Your task to perform on an android device: Open the phone app and click the voicemail tab. Image 0: 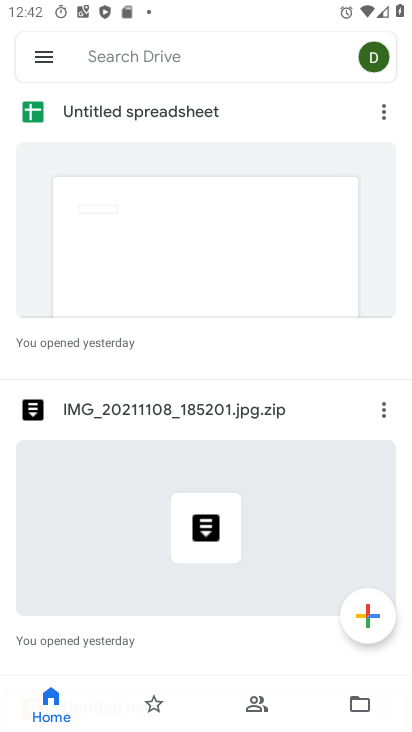
Step 0: press home button
Your task to perform on an android device: Open the phone app and click the voicemail tab. Image 1: 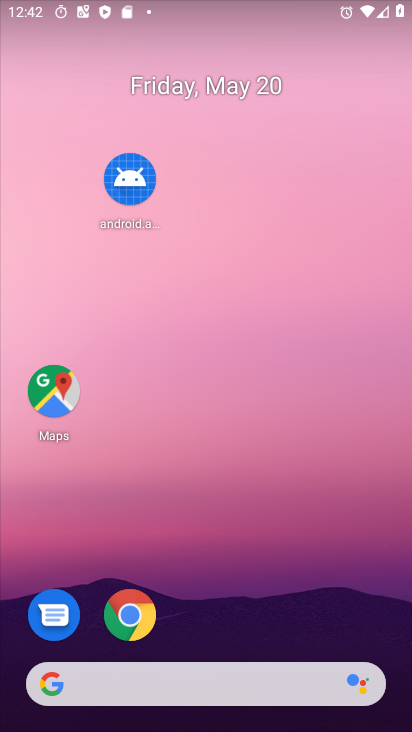
Step 1: drag from (240, 588) to (286, 3)
Your task to perform on an android device: Open the phone app and click the voicemail tab. Image 2: 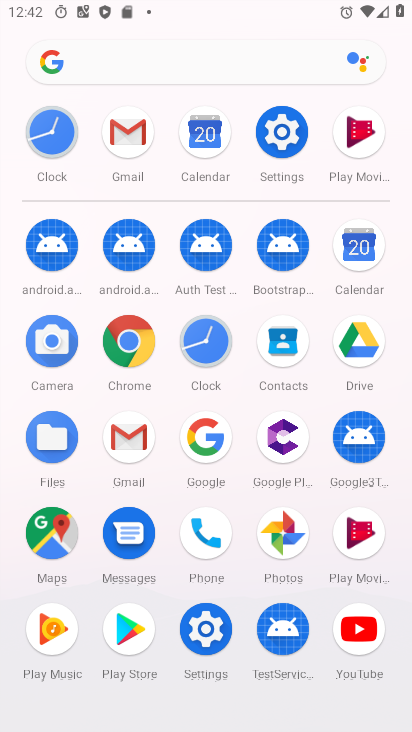
Step 2: click (192, 538)
Your task to perform on an android device: Open the phone app and click the voicemail tab. Image 3: 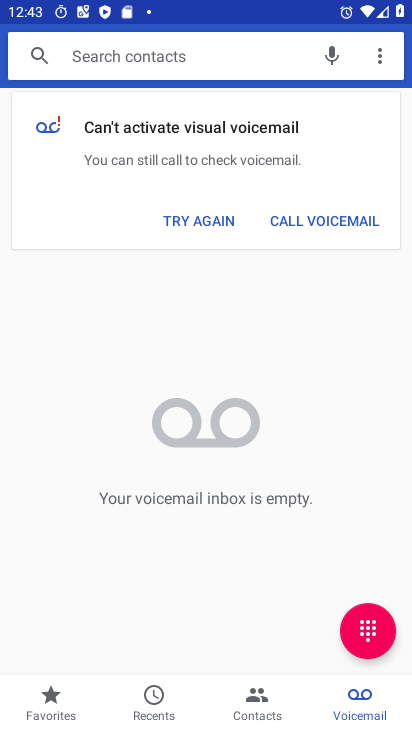
Step 3: task complete